Your task to perform on an android device: change the clock display to analog Image 0: 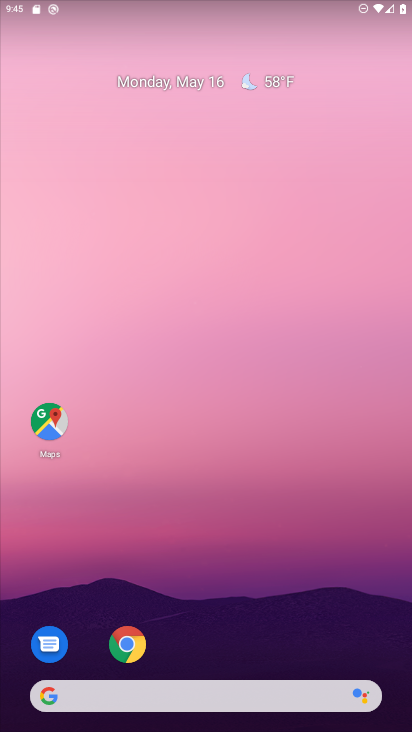
Step 0: drag from (231, 695) to (321, 4)
Your task to perform on an android device: change the clock display to analog Image 1: 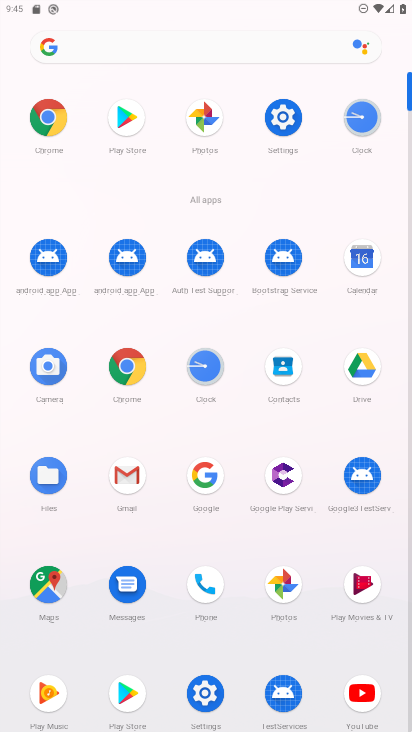
Step 1: click (214, 351)
Your task to perform on an android device: change the clock display to analog Image 2: 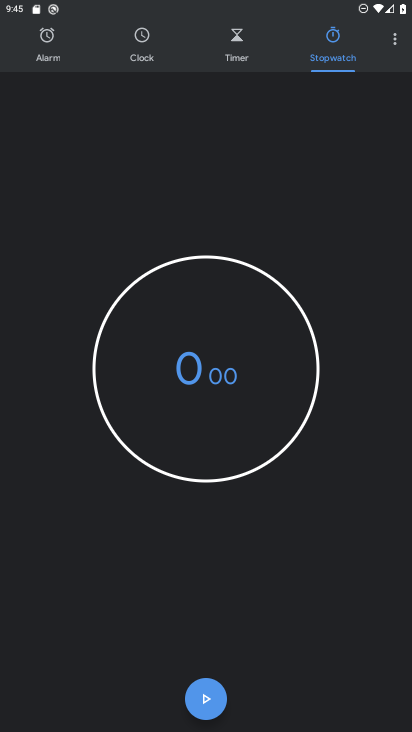
Step 2: click (381, 38)
Your task to perform on an android device: change the clock display to analog Image 3: 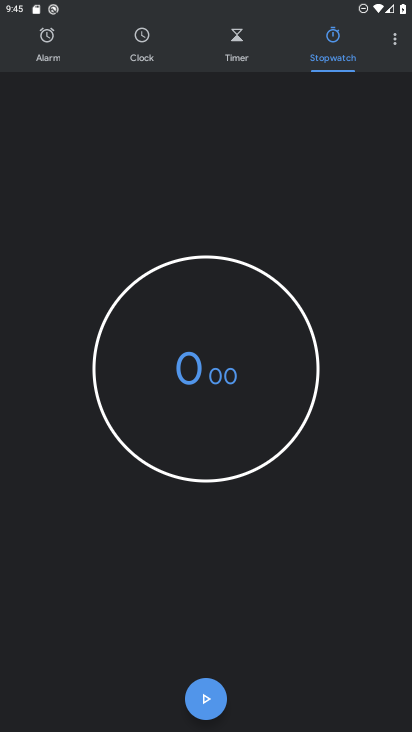
Step 3: click (393, 52)
Your task to perform on an android device: change the clock display to analog Image 4: 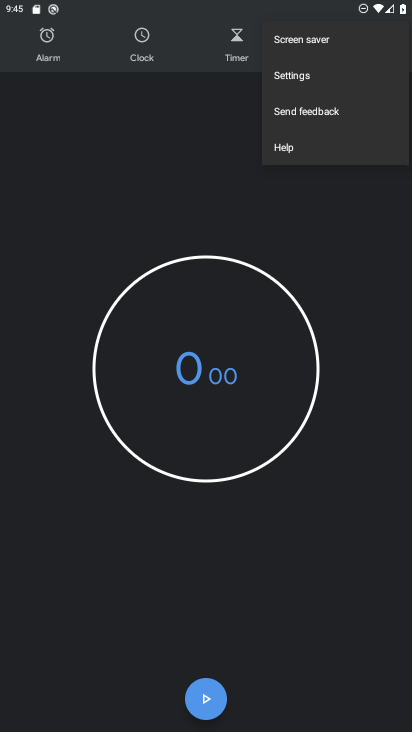
Step 4: click (318, 74)
Your task to perform on an android device: change the clock display to analog Image 5: 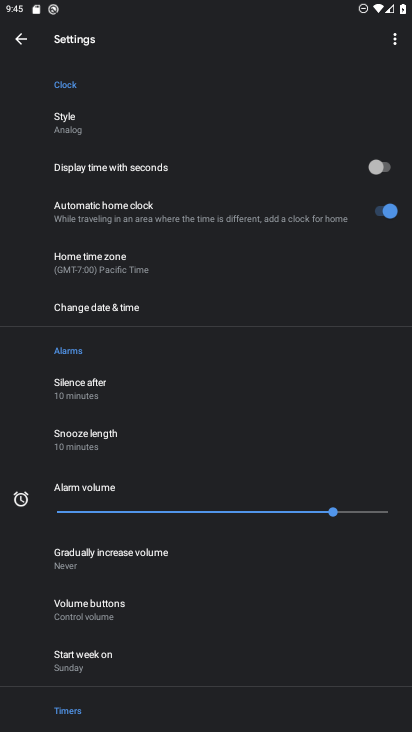
Step 5: task complete